Your task to perform on an android device: Go to sound settings Image 0: 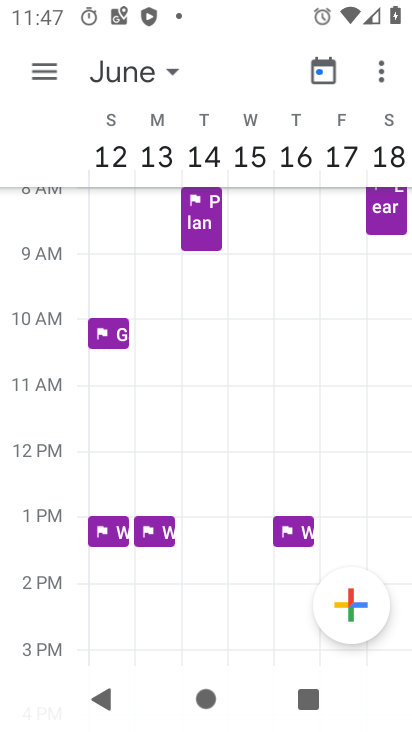
Step 0: press home button
Your task to perform on an android device: Go to sound settings Image 1: 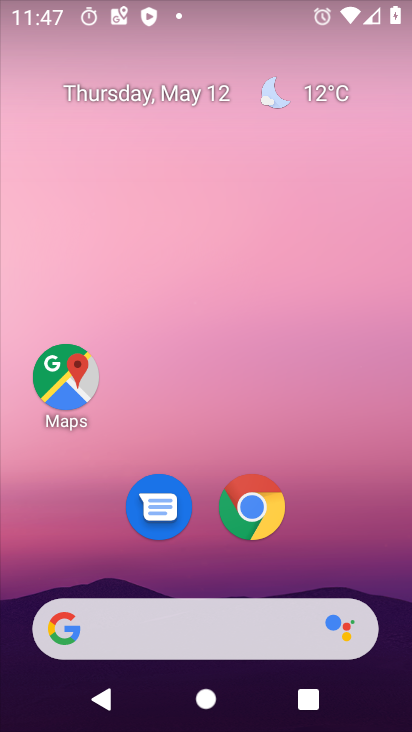
Step 1: drag from (216, 580) to (274, 16)
Your task to perform on an android device: Go to sound settings Image 2: 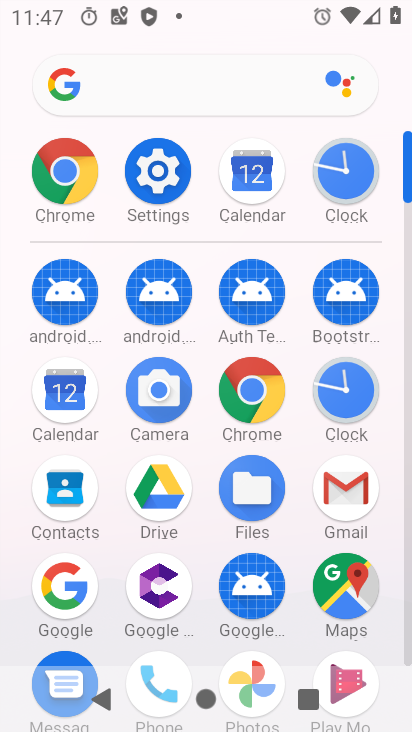
Step 2: click (148, 206)
Your task to perform on an android device: Go to sound settings Image 3: 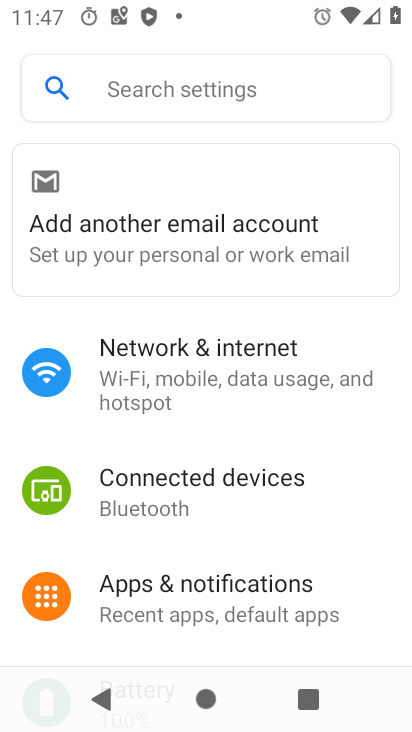
Step 3: drag from (204, 605) to (273, 286)
Your task to perform on an android device: Go to sound settings Image 4: 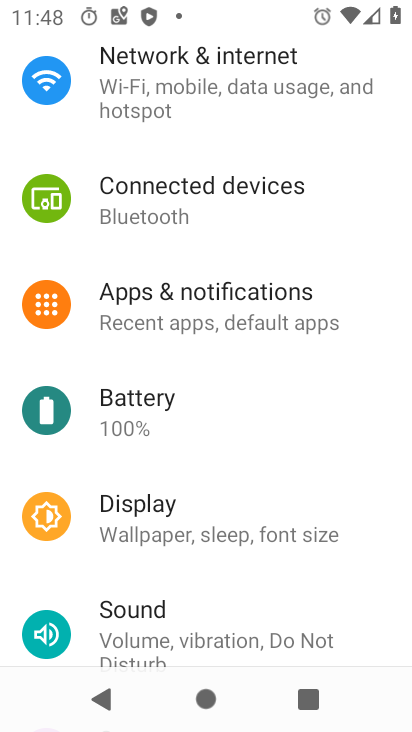
Step 4: drag from (240, 558) to (272, 228)
Your task to perform on an android device: Go to sound settings Image 5: 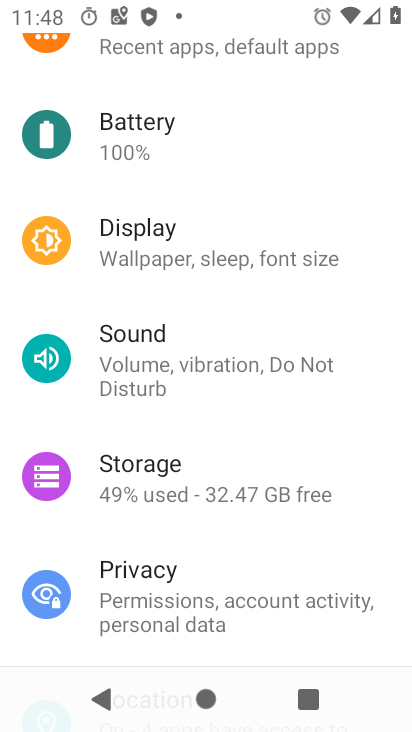
Step 5: click (168, 382)
Your task to perform on an android device: Go to sound settings Image 6: 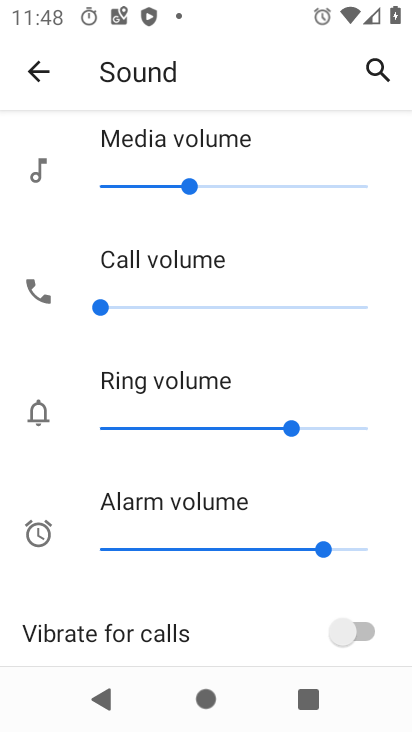
Step 6: task complete